Your task to perform on an android device: search for starred emails in the gmail app Image 0: 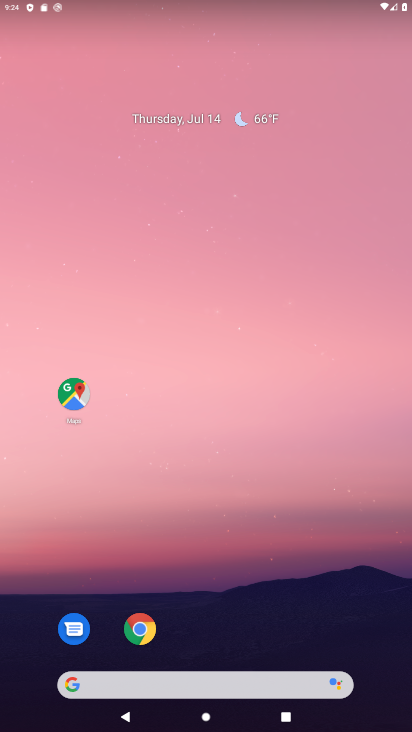
Step 0: press home button
Your task to perform on an android device: search for starred emails in the gmail app Image 1: 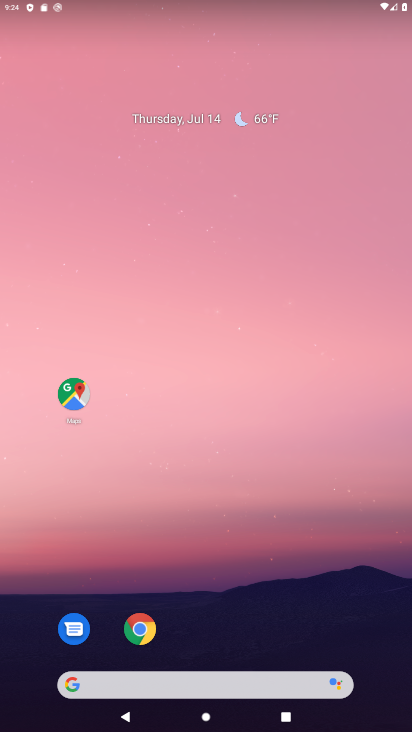
Step 1: drag from (238, 594) to (177, 116)
Your task to perform on an android device: search for starred emails in the gmail app Image 2: 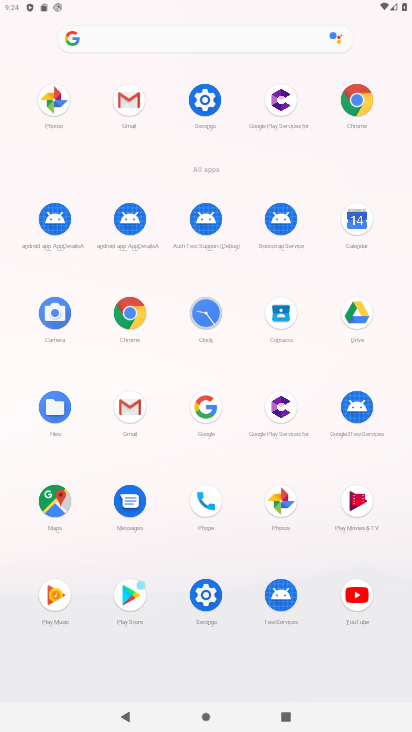
Step 2: click (133, 96)
Your task to perform on an android device: search for starred emails in the gmail app Image 3: 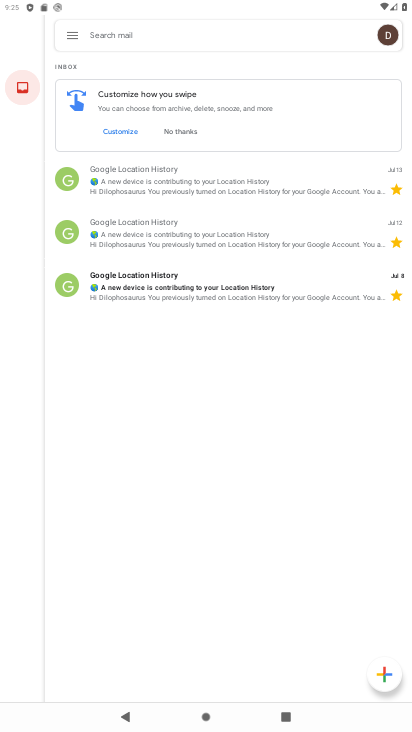
Step 3: click (68, 34)
Your task to perform on an android device: search for starred emails in the gmail app Image 4: 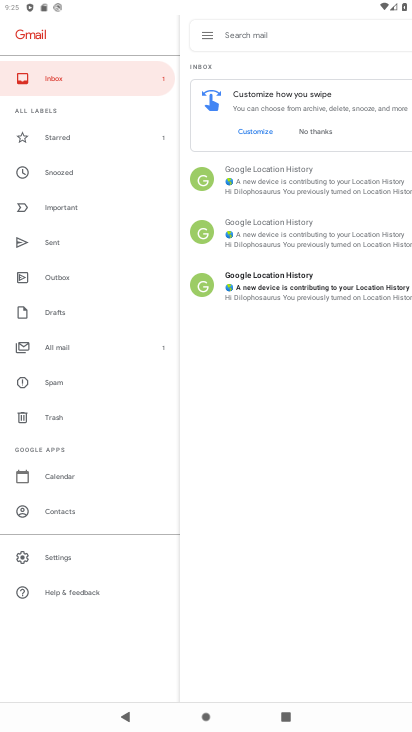
Step 4: click (43, 133)
Your task to perform on an android device: search for starred emails in the gmail app Image 5: 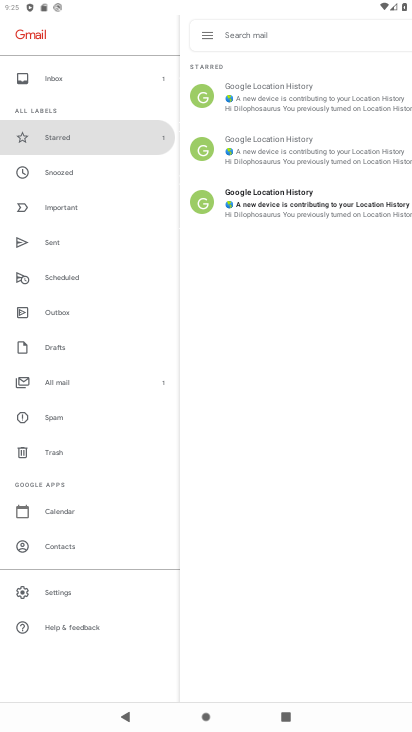
Step 5: task complete